Your task to perform on an android device: turn on data saver in the chrome app Image 0: 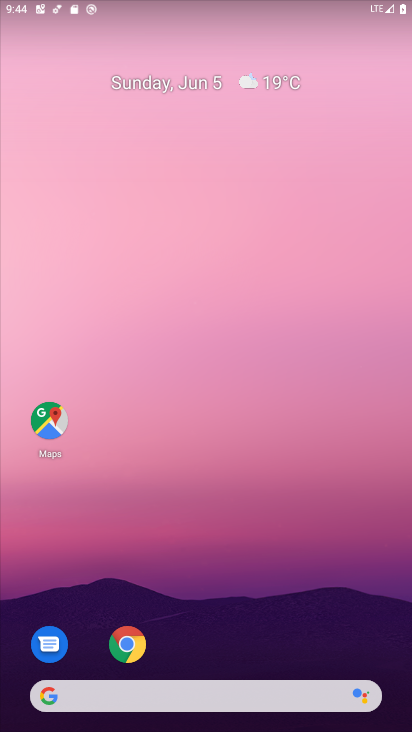
Step 0: click (125, 648)
Your task to perform on an android device: turn on data saver in the chrome app Image 1: 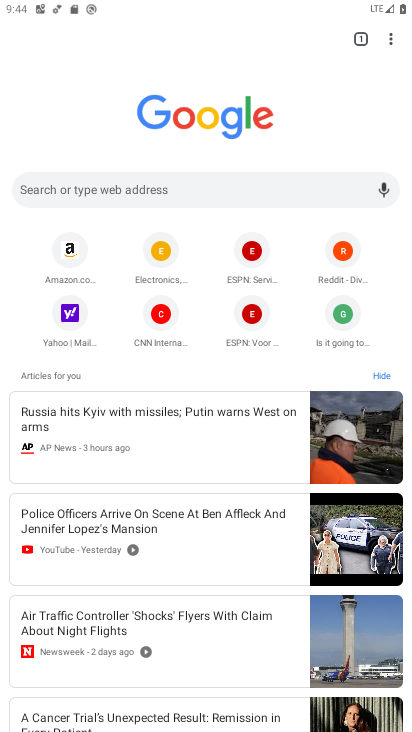
Step 1: click (384, 36)
Your task to perform on an android device: turn on data saver in the chrome app Image 2: 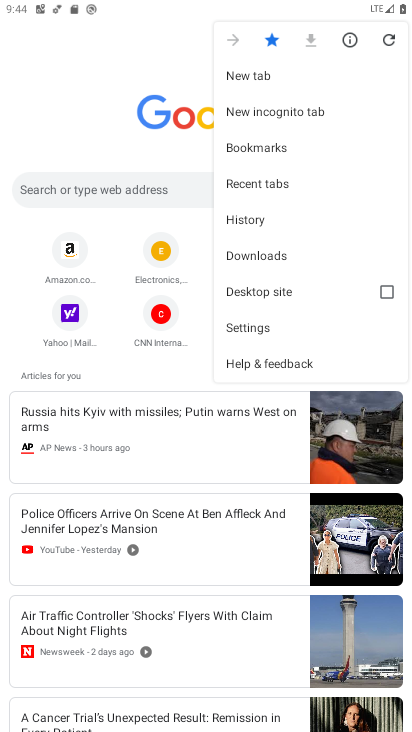
Step 2: click (272, 322)
Your task to perform on an android device: turn on data saver in the chrome app Image 3: 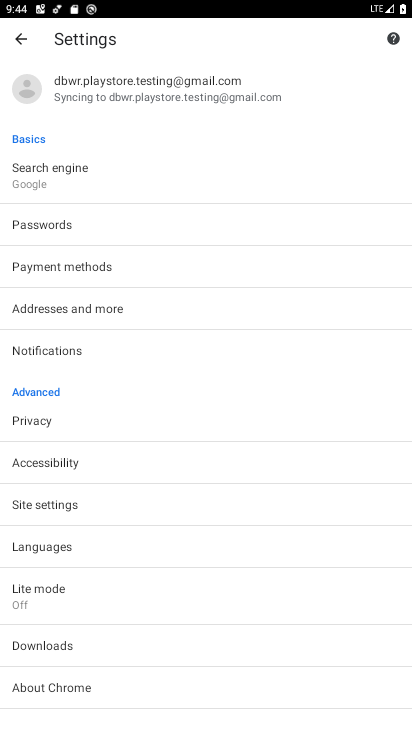
Step 3: click (78, 587)
Your task to perform on an android device: turn on data saver in the chrome app Image 4: 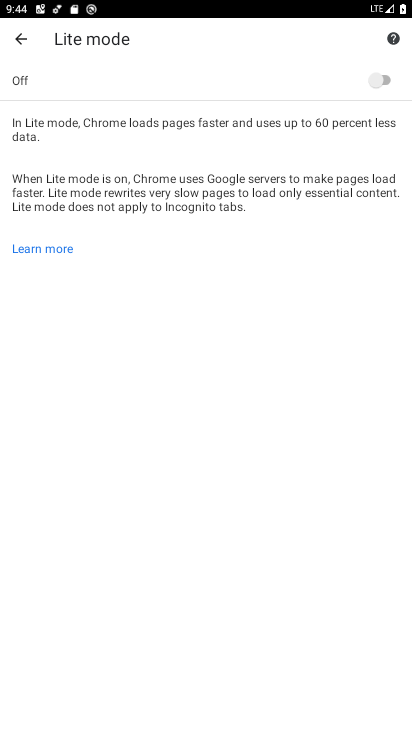
Step 4: click (391, 80)
Your task to perform on an android device: turn on data saver in the chrome app Image 5: 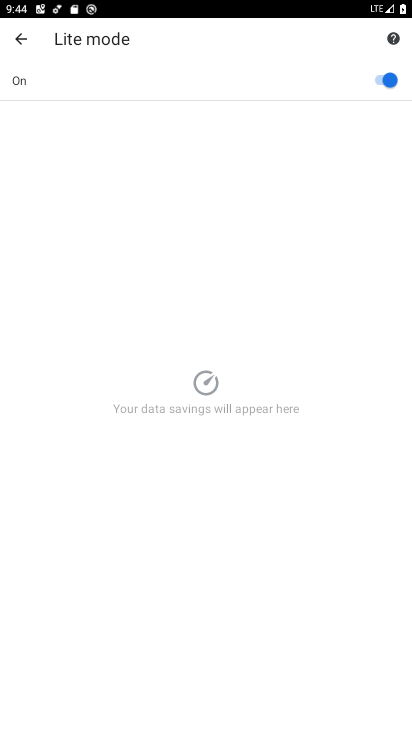
Step 5: task complete